Your task to perform on an android device: Go to Yahoo.com Image 0: 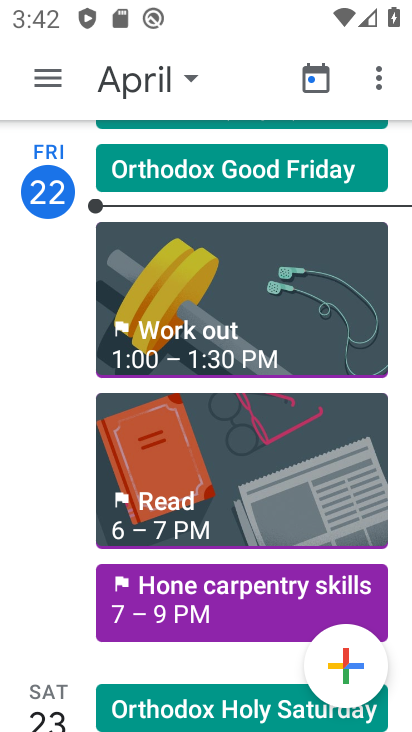
Step 0: press home button
Your task to perform on an android device: Go to Yahoo.com Image 1: 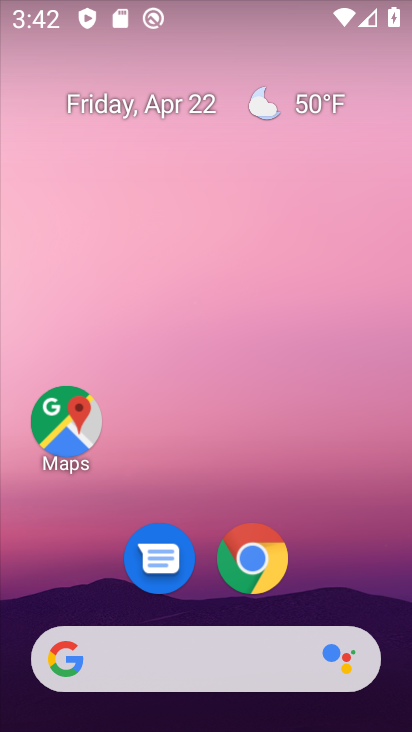
Step 1: click (264, 573)
Your task to perform on an android device: Go to Yahoo.com Image 2: 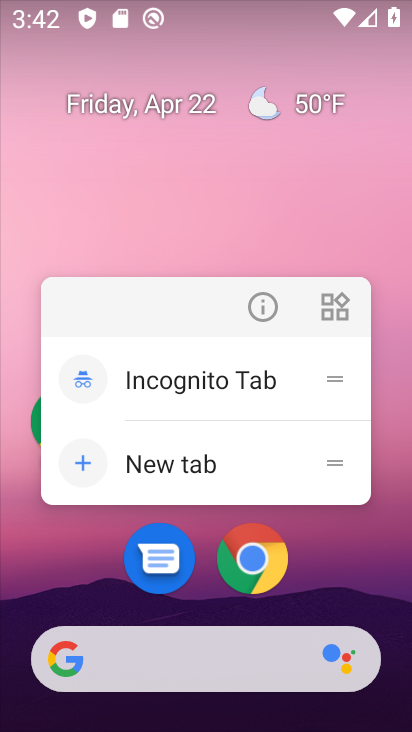
Step 2: click (272, 559)
Your task to perform on an android device: Go to Yahoo.com Image 3: 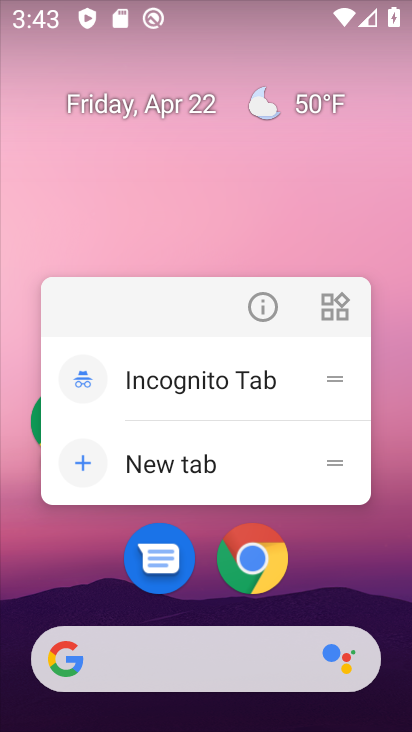
Step 3: click (256, 574)
Your task to perform on an android device: Go to Yahoo.com Image 4: 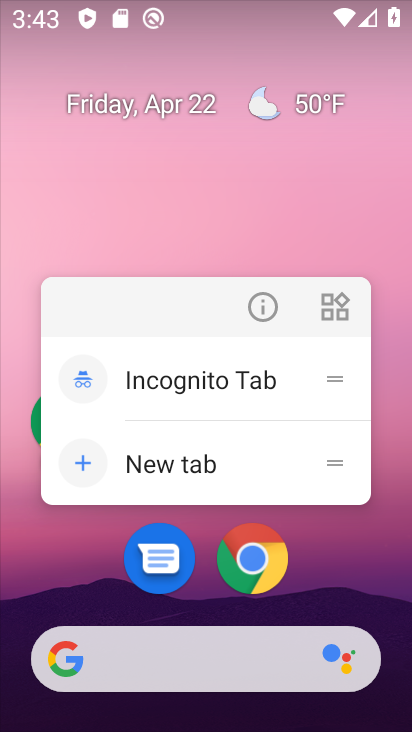
Step 4: click (245, 554)
Your task to perform on an android device: Go to Yahoo.com Image 5: 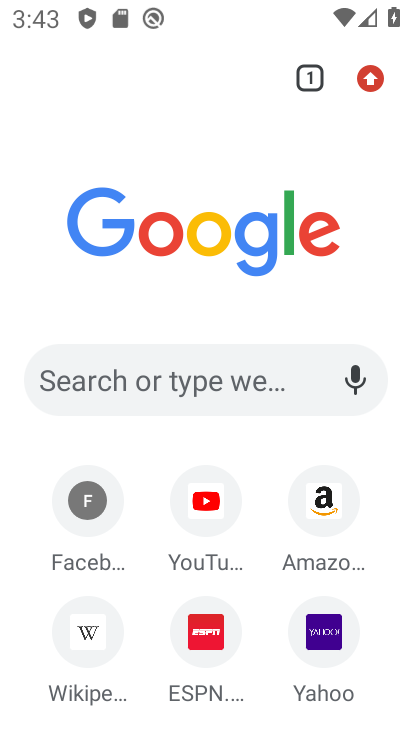
Step 5: click (321, 646)
Your task to perform on an android device: Go to Yahoo.com Image 6: 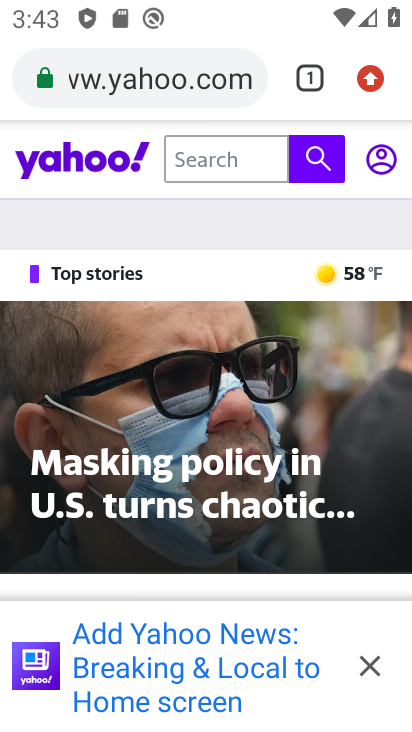
Step 6: task complete